Your task to perform on an android device: turn off location history Image 0: 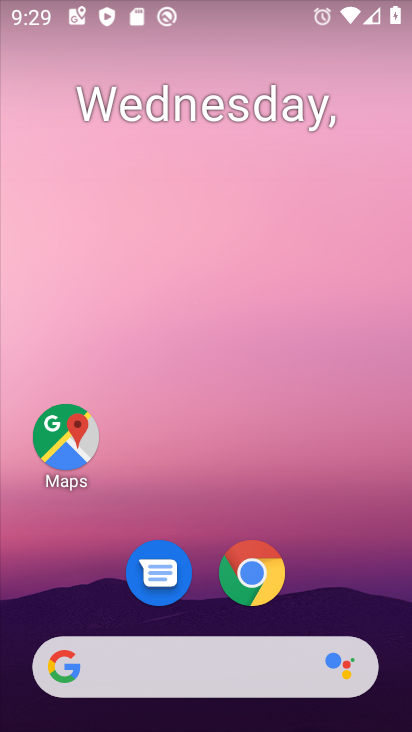
Step 0: drag from (290, 623) to (300, 196)
Your task to perform on an android device: turn off location history Image 1: 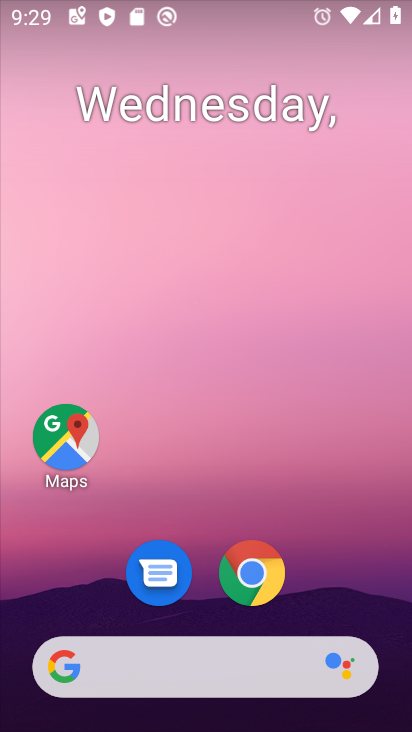
Step 1: drag from (331, 609) to (301, 186)
Your task to perform on an android device: turn off location history Image 2: 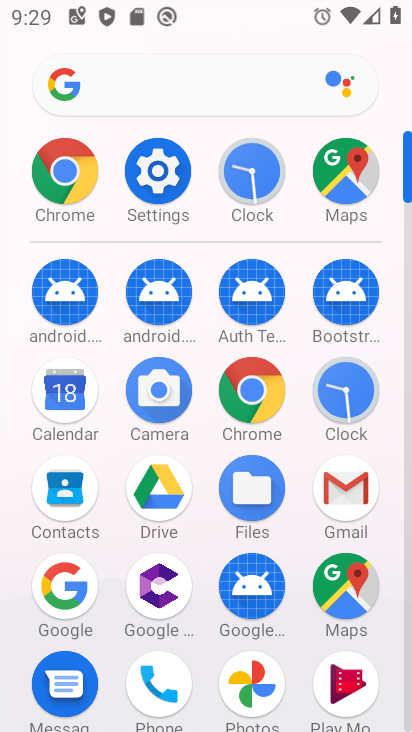
Step 2: click (147, 185)
Your task to perform on an android device: turn off location history Image 3: 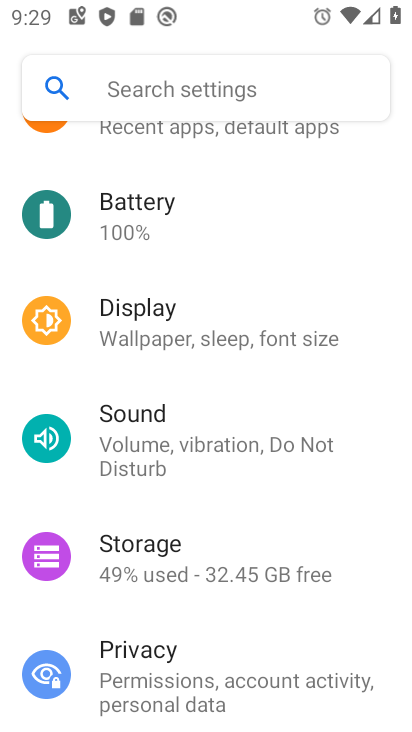
Step 3: drag from (223, 481) to (233, 226)
Your task to perform on an android device: turn off location history Image 4: 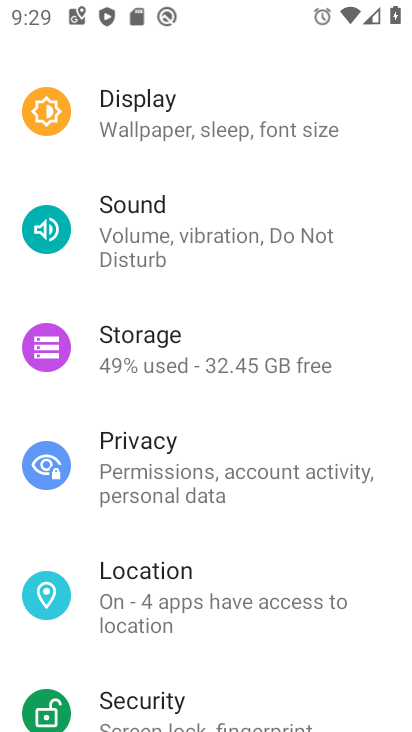
Step 4: click (183, 586)
Your task to perform on an android device: turn off location history Image 5: 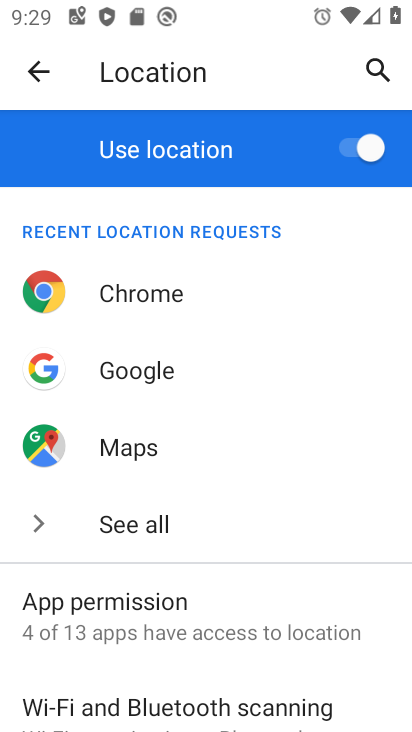
Step 5: drag from (179, 593) to (245, 212)
Your task to perform on an android device: turn off location history Image 6: 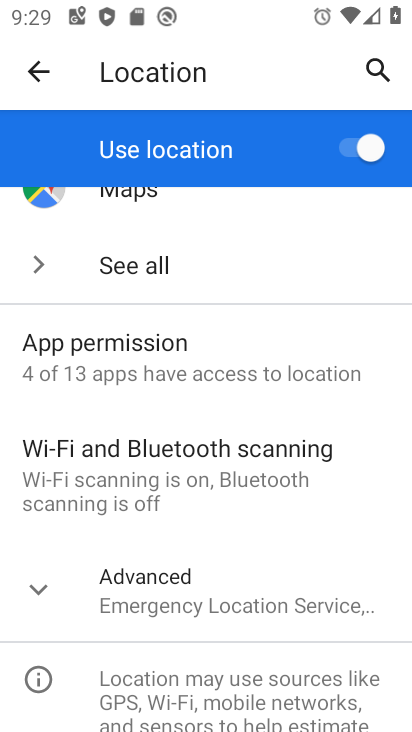
Step 6: click (203, 615)
Your task to perform on an android device: turn off location history Image 7: 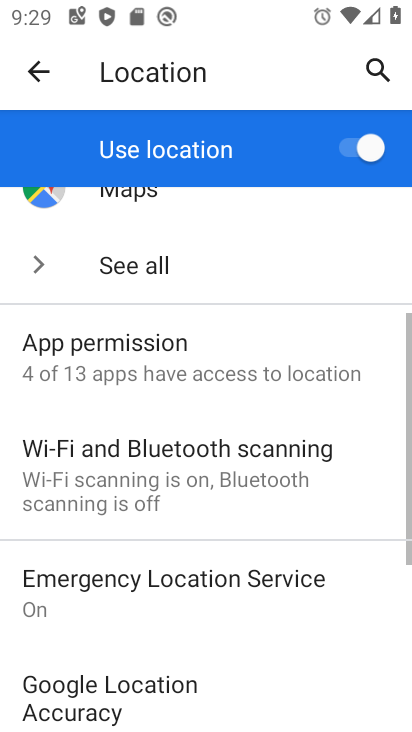
Step 7: drag from (201, 617) to (239, 282)
Your task to perform on an android device: turn off location history Image 8: 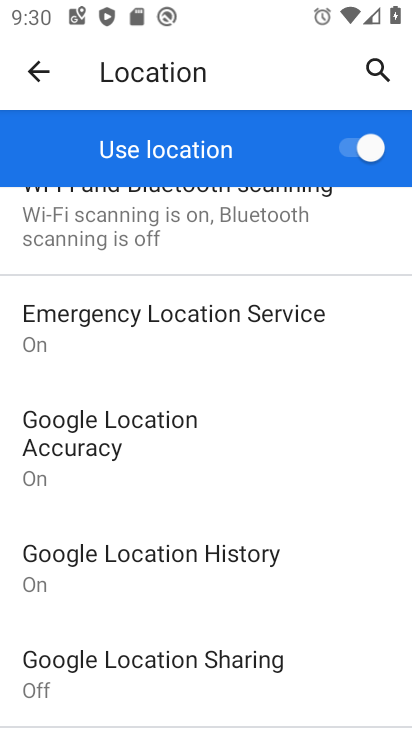
Step 8: click (249, 594)
Your task to perform on an android device: turn off location history Image 9: 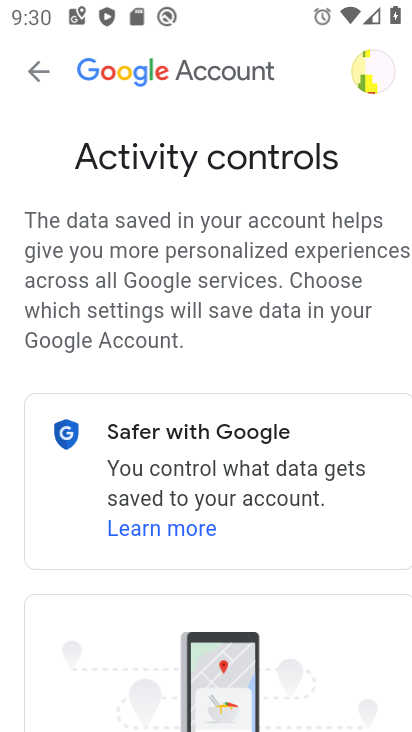
Step 9: drag from (300, 535) to (115, 128)
Your task to perform on an android device: turn off location history Image 10: 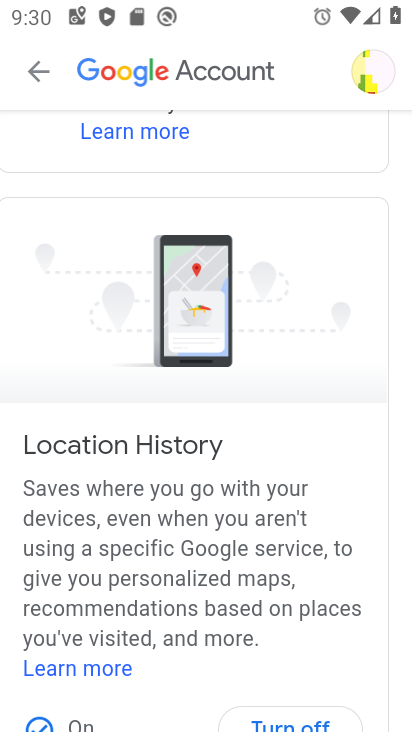
Step 10: drag from (255, 531) to (141, 199)
Your task to perform on an android device: turn off location history Image 11: 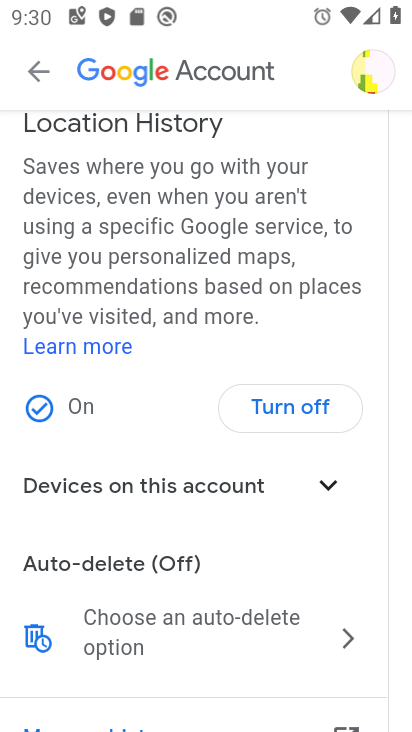
Step 11: click (286, 422)
Your task to perform on an android device: turn off location history Image 12: 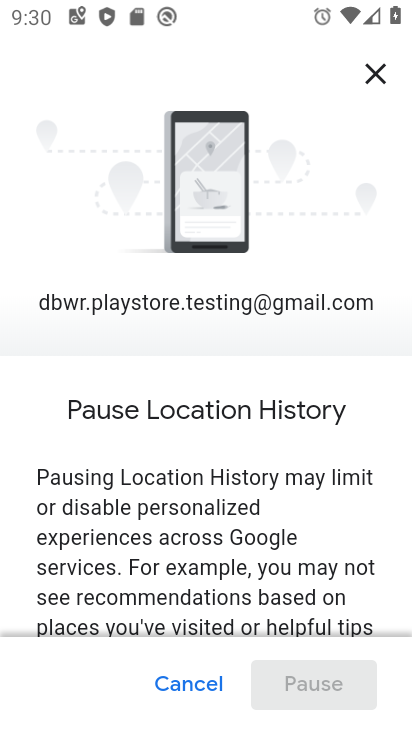
Step 12: drag from (264, 603) to (300, 5)
Your task to perform on an android device: turn off location history Image 13: 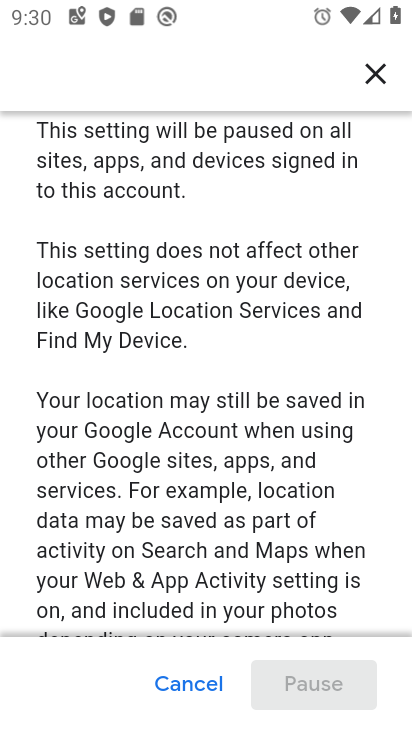
Step 13: drag from (296, 603) to (290, 307)
Your task to perform on an android device: turn off location history Image 14: 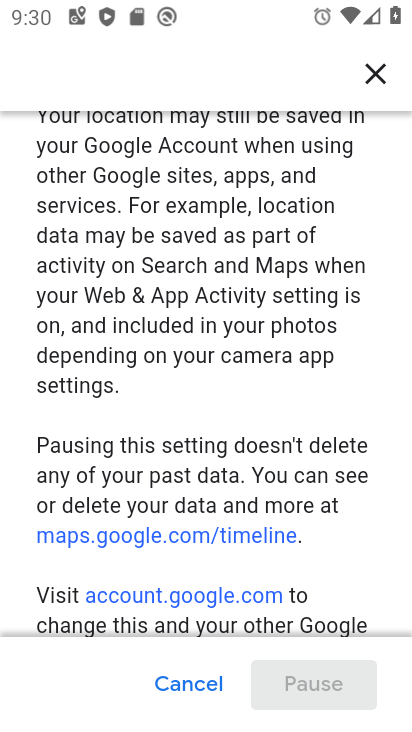
Step 14: drag from (333, 555) to (319, 248)
Your task to perform on an android device: turn off location history Image 15: 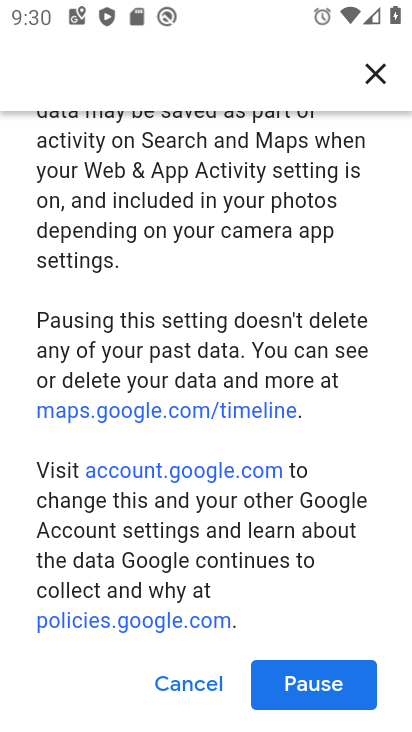
Step 15: click (307, 679)
Your task to perform on an android device: turn off location history Image 16: 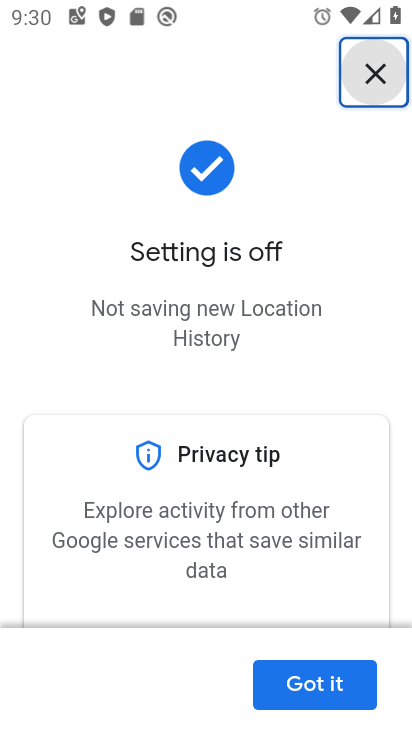
Step 16: click (305, 682)
Your task to perform on an android device: turn off location history Image 17: 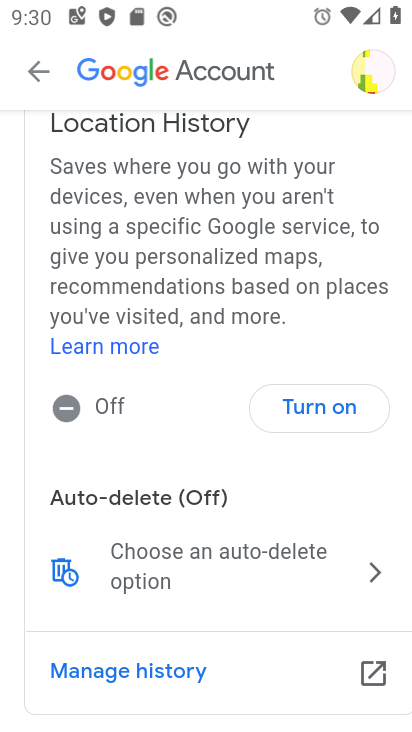
Step 17: task complete